Your task to perform on an android device: Do I have any events tomorrow? Image 0: 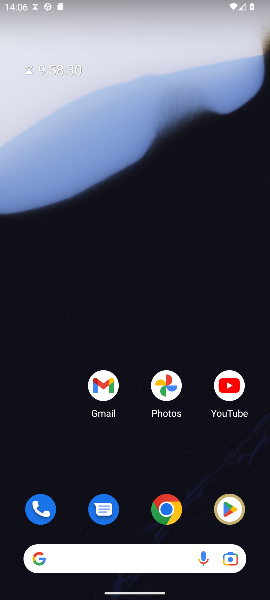
Step 0: press home button
Your task to perform on an android device: Do I have any events tomorrow? Image 1: 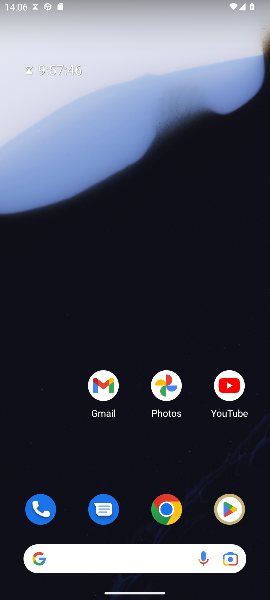
Step 1: drag from (145, 508) to (192, 5)
Your task to perform on an android device: Do I have any events tomorrow? Image 2: 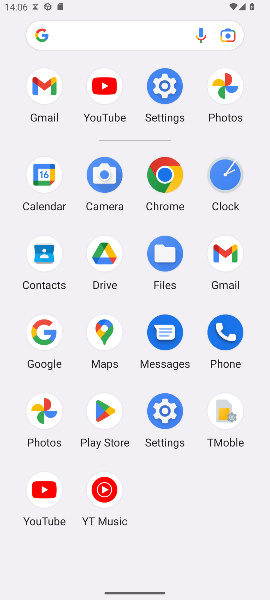
Step 2: click (36, 183)
Your task to perform on an android device: Do I have any events tomorrow? Image 3: 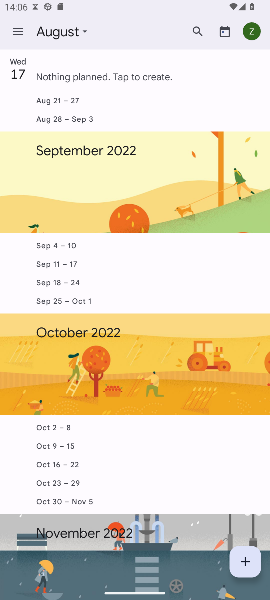
Step 3: click (77, 31)
Your task to perform on an android device: Do I have any events tomorrow? Image 4: 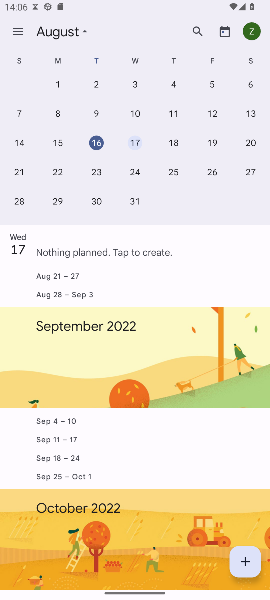
Step 4: click (134, 140)
Your task to perform on an android device: Do I have any events tomorrow? Image 5: 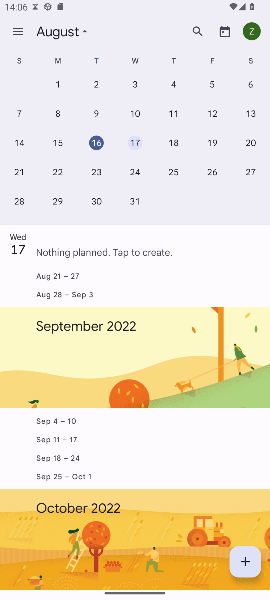
Step 5: task complete